Your task to perform on an android device: Go to privacy settings Image 0: 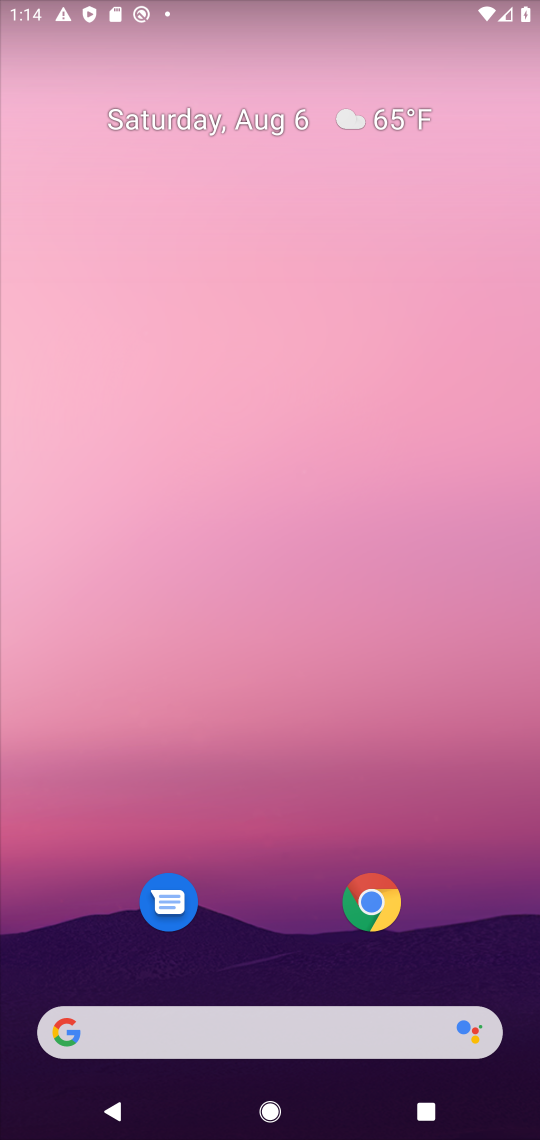
Step 0: drag from (272, 837) to (271, 73)
Your task to perform on an android device: Go to privacy settings Image 1: 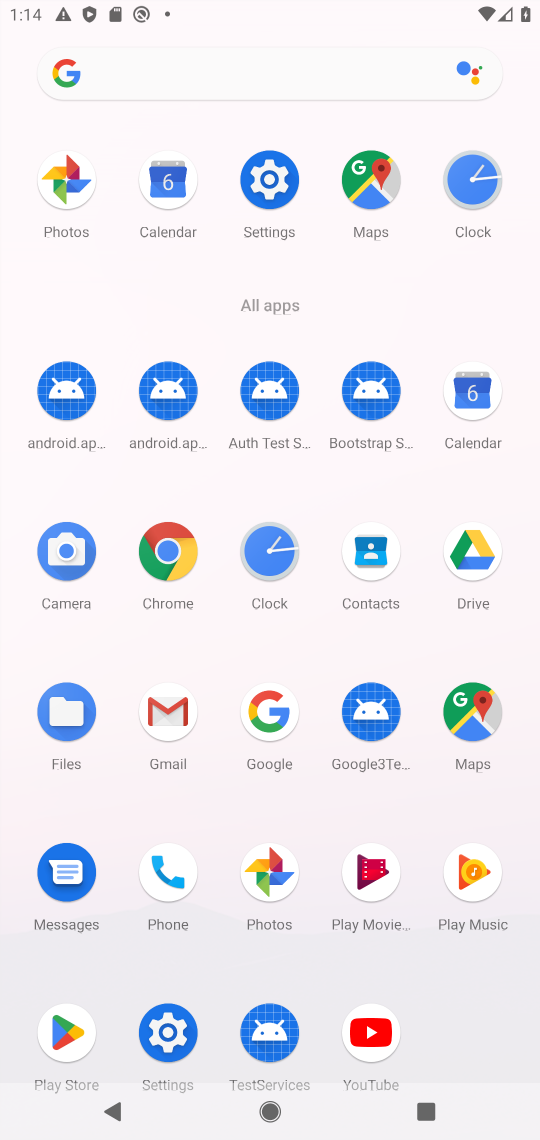
Step 1: click (272, 184)
Your task to perform on an android device: Go to privacy settings Image 2: 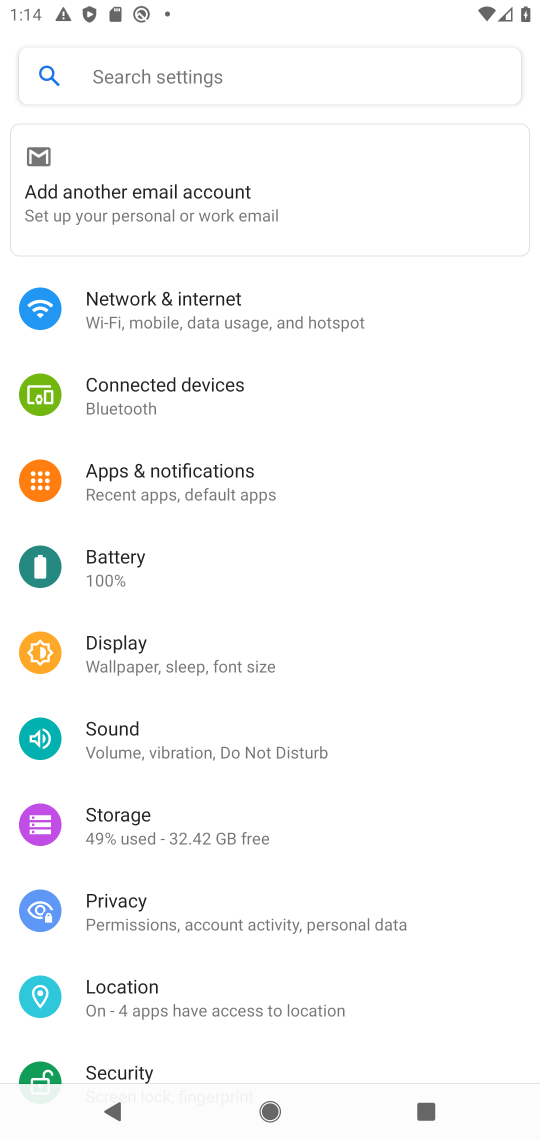
Step 2: click (108, 898)
Your task to perform on an android device: Go to privacy settings Image 3: 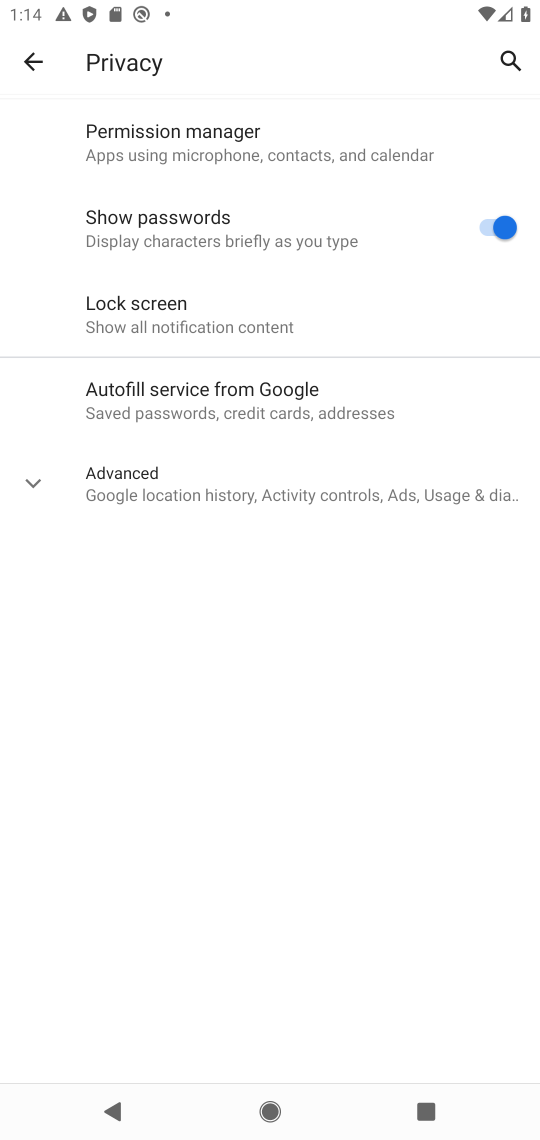
Step 3: task complete